Your task to perform on an android device: toggle show notifications on the lock screen Image 0: 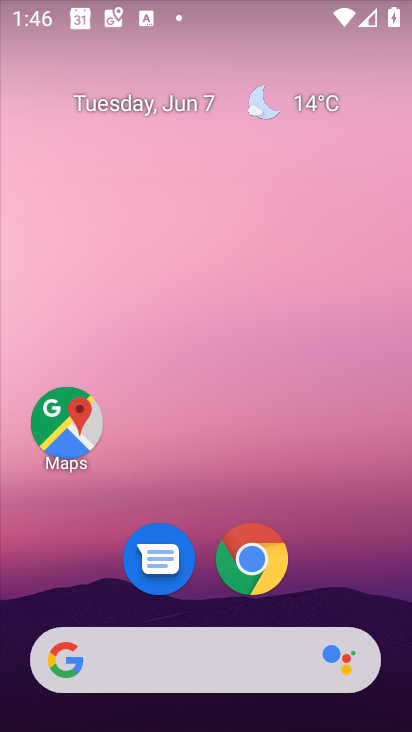
Step 0: drag from (23, 605) to (169, 207)
Your task to perform on an android device: toggle show notifications on the lock screen Image 1: 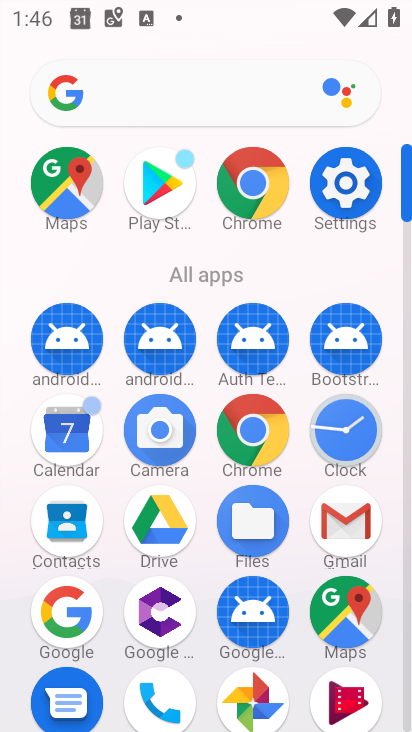
Step 1: click (355, 160)
Your task to perform on an android device: toggle show notifications on the lock screen Image 2: 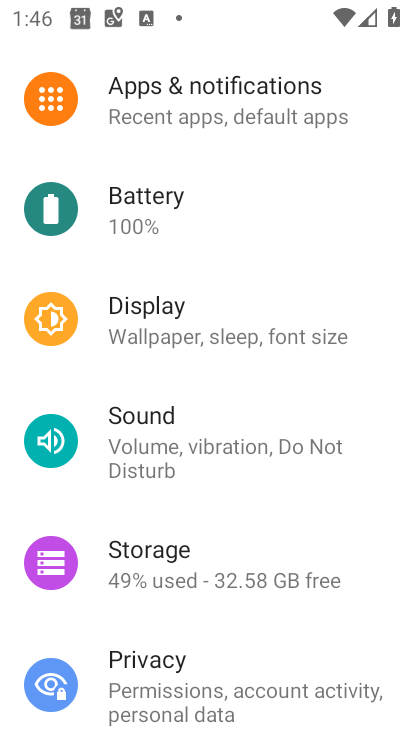
Step 2: click (155, 99)
Your task to perform on an android device: toggle show notifications on the lock screen Image 3: 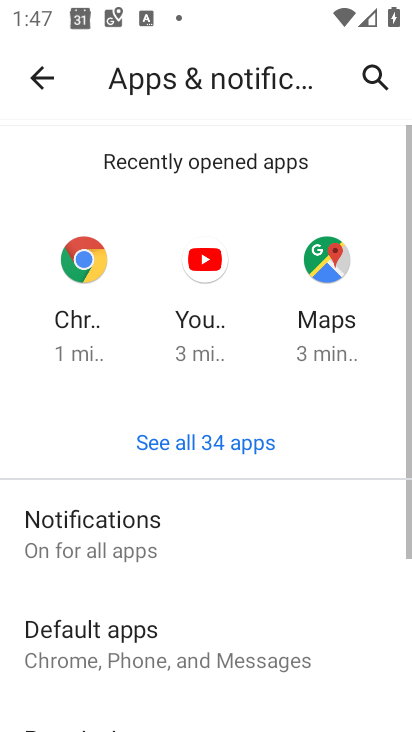
Step 3: click (60, 550)
Your task to perform on an android device: toggle show notifications on the lock screen Image 4: 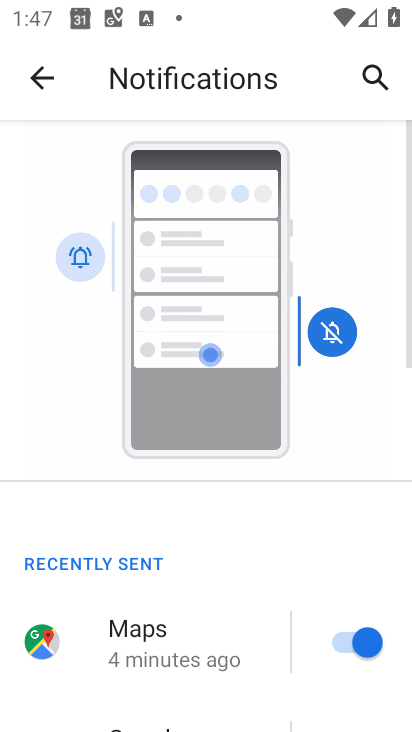
Step 4: drag from (2, 626) to (194, 200)
Your task to perform on an android device: toggle show notifications on the lock screen Image 5: 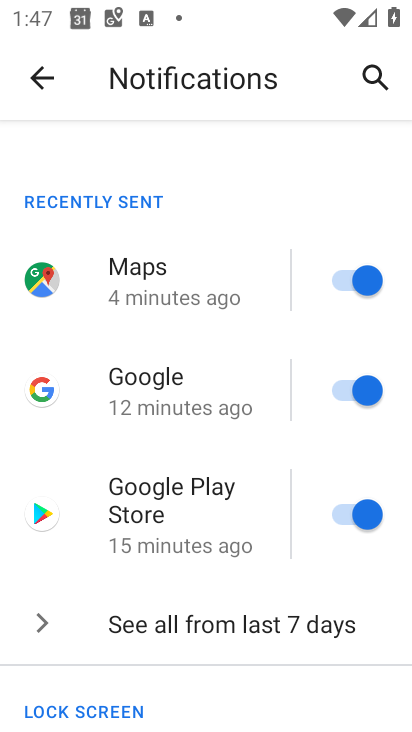
Step 5: drag from (4, 603) to (245, 200)
Your task to perform on an android device: toggle show notifications on the lock screen Image 6: 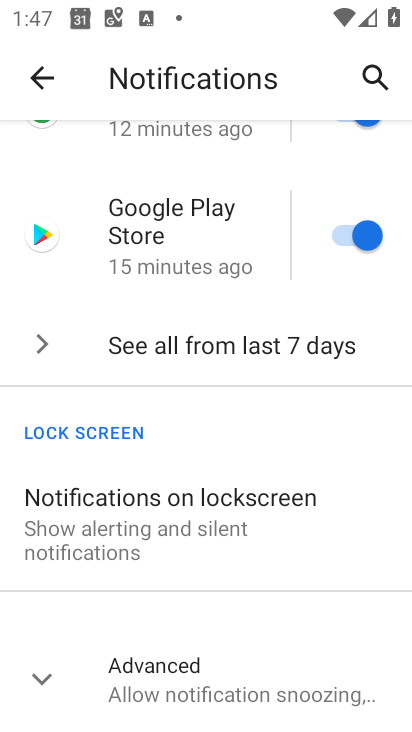
Step 6: click (169, 518)
Your task to perform on an android device: toggle show notifications on the lock screen Image 7: 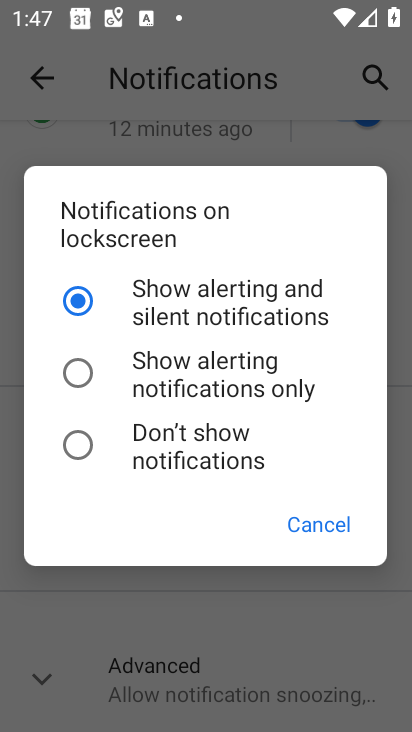
Step 7: click (63, 455)
Your task to perform on an android device: toggle show notifications on the lock screen Image 8: 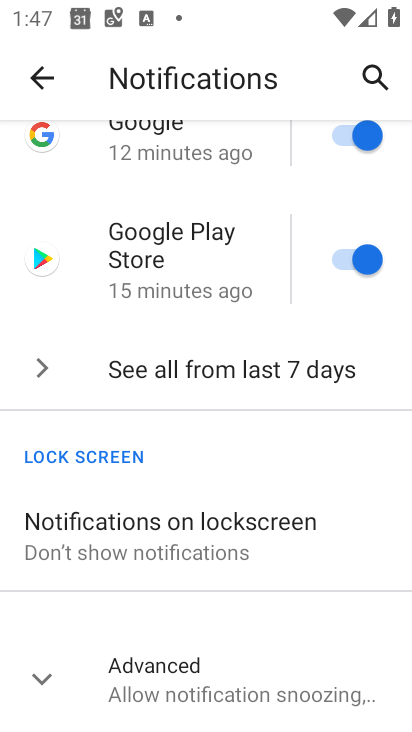
Step 8: task complete